Your task to perform on an android device: find which apps use the phone's location Image 0: 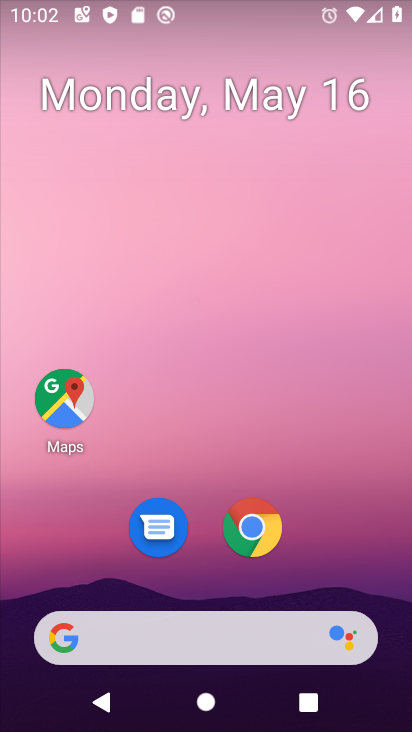
Step 0: drag from (356, 597) to (359, 0)
Your task to perform on an android device: find which apps use the phone's location Image 1: 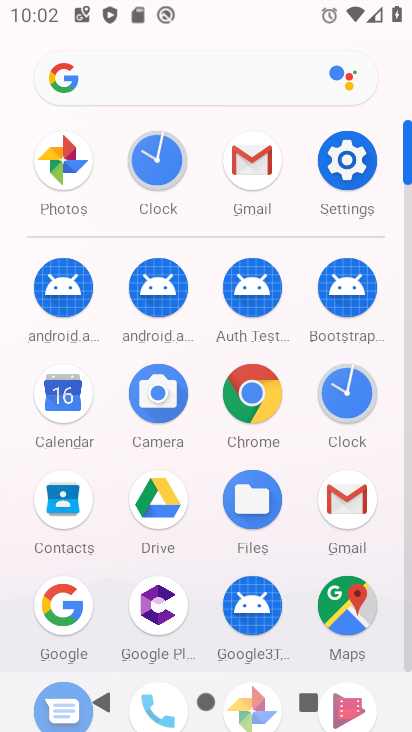
Step 1: click (346, 157)
Your task to perform on an android device: find which apps use the phone's location Image 2: 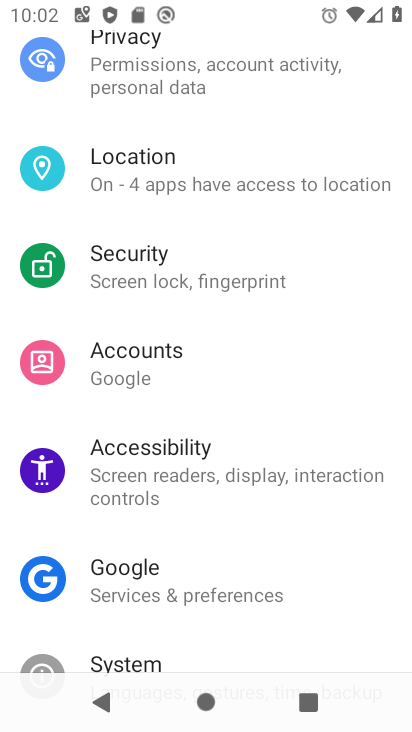
Step 2: click (141, 175)
Your task to perform on an android device: find which apps use the phone's location Image 3: 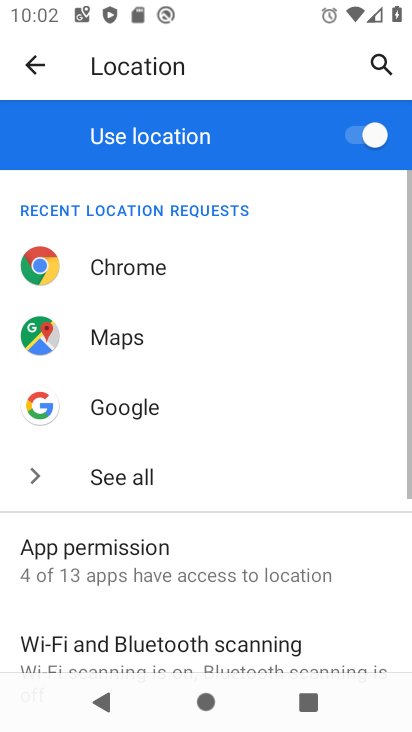
Step 3: click (124, 546)
Your task to perform on an android device: find which apps use the phone's location Image 4: 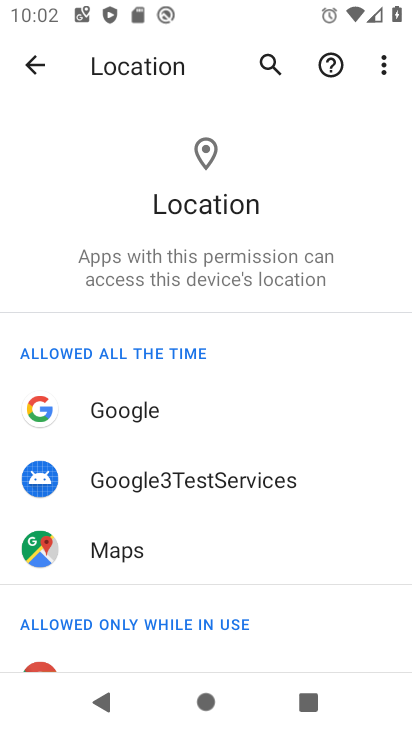
Step 4: task complete